Your task to perform on an android device: What's the weather going to be tomorrow? Image 0: 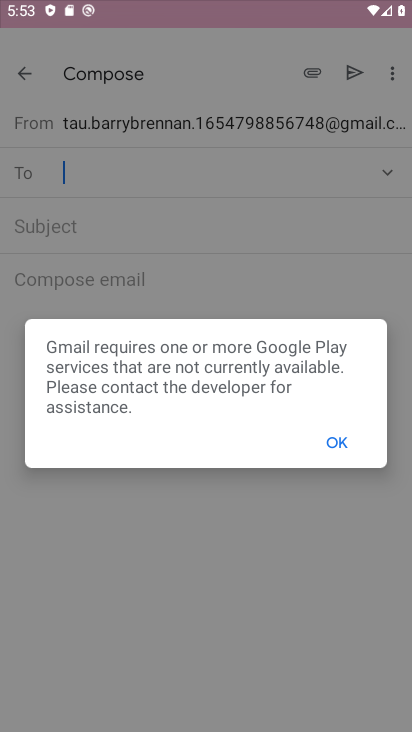
Step 0: click (207, 109)
Your task to perform on an android device: What's the weather going to be tomorrow? Image 1: 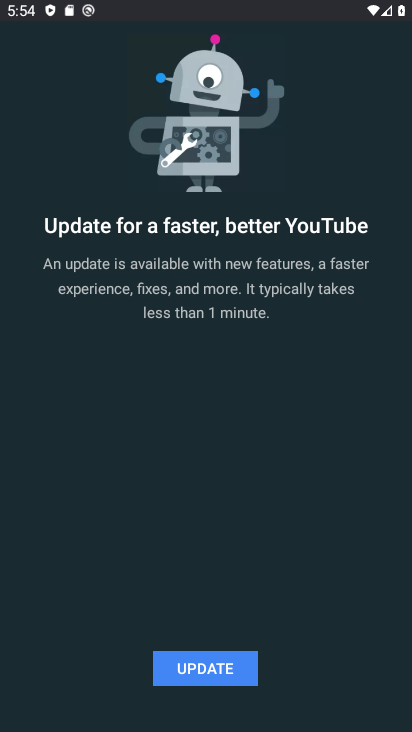
Step 1: press home button
Your task to perform on an android device: What's the weather going to be tomorrow? Image 2: 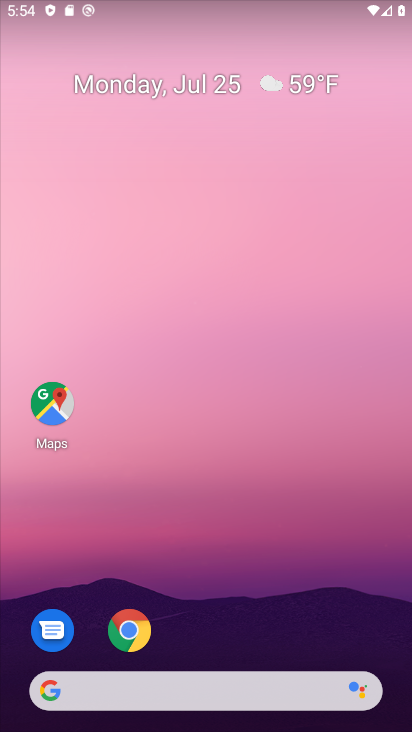
Step 2: drag from (215, 613) to (174, 173)
Your task to perform on an android device: What's the weather going to be tomorrow? Image 3: 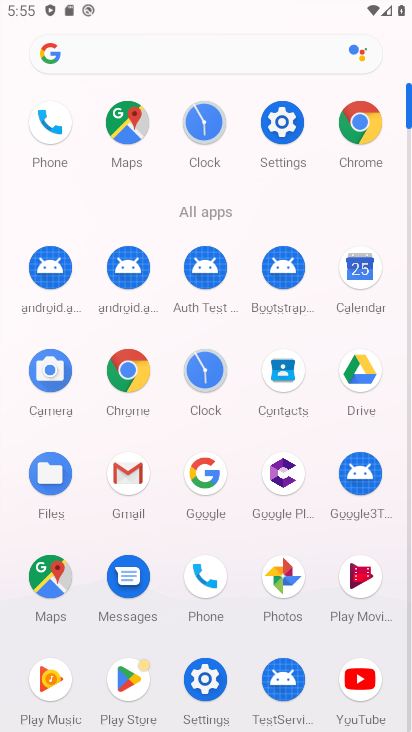
Step 3: click (191, 476)
Your task to perform on an android device: What's the weather going to be tomorrow? Image 4: 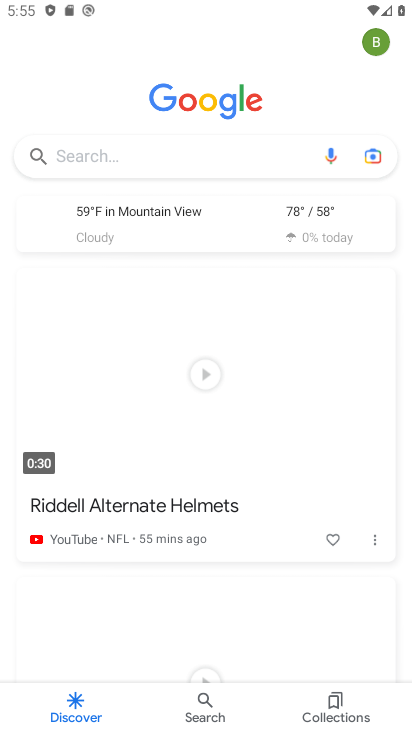
Step 4: click (153, 160)
Your task to perform on an android device: What's the weather going to be tomorrow? Image 5: 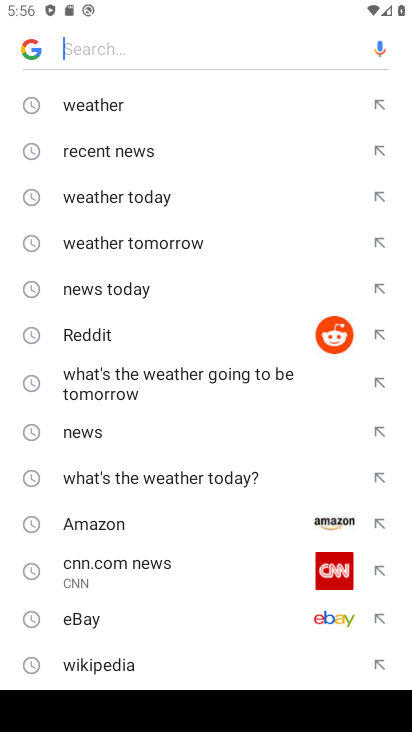
Step 5: click (106, 113)
Your task to perform on an android device: What's the weather going to be tomorrow? Image 6: 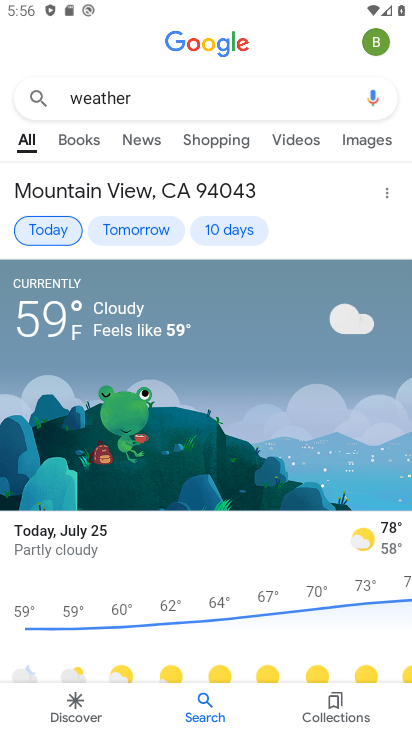
Step 6: click (123, 227)
Your task to perform on an android device: What's the weather going to be tomorrow? Image 7: 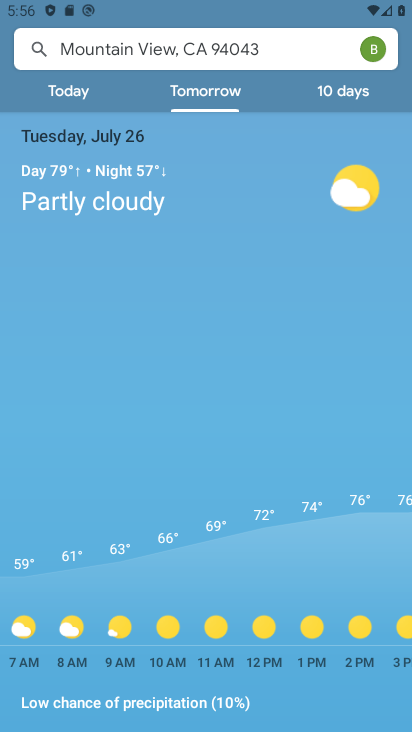
Step 7: task complete